Your task to perform on an android device: turn on improve location accuracy Image 0: 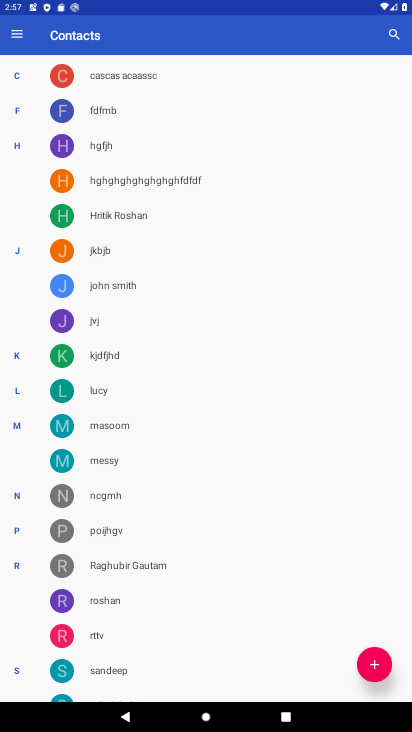
Step 0: press home button
Your task to perform on an android device: turn on improve location accuracy Image 1: 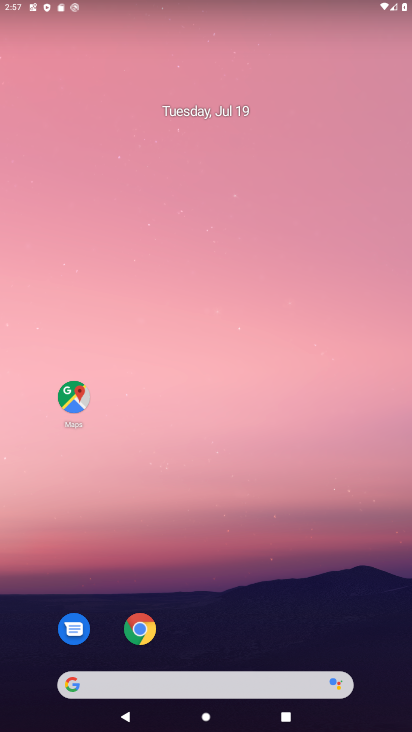
Step 1: drag from (193, 674) to (163, 60)
Your task to perform on an android device: turn on improve location accuracy Image 2: 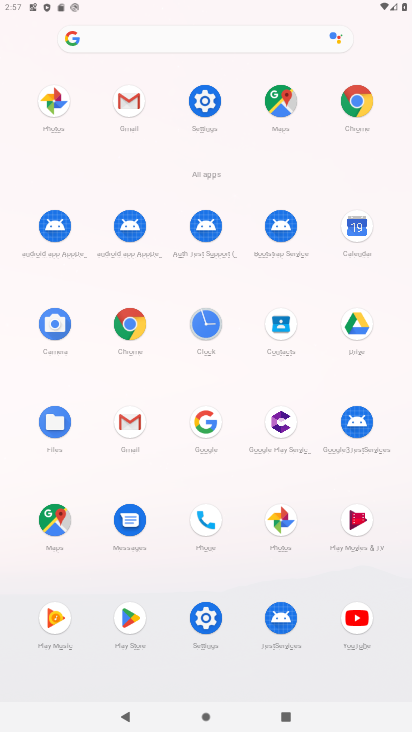
Step 2: click (198, 97)
Your task to perform on an android device: turn on improve location accuracy Image 3: 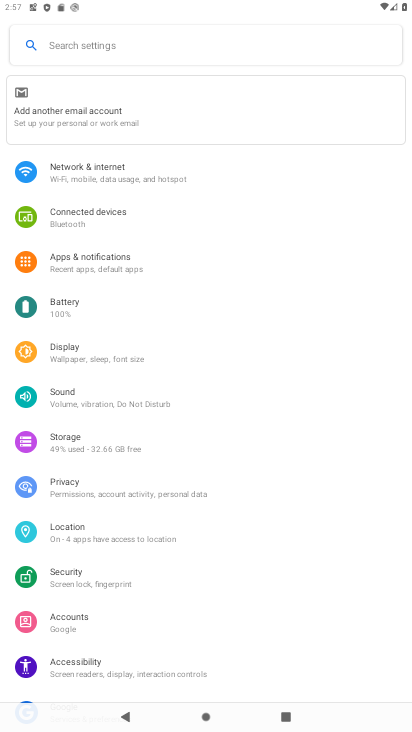
Step 3: click (81, 526)
Your task to perform on an android device: turn on improve location accuracy Image 4: 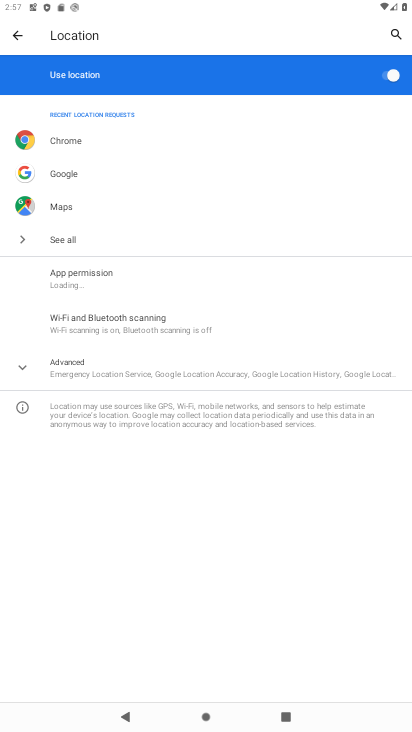
Step 4: click (124, 368)
Your task to perform on an android device: turn on improve location accuracy Image 5: 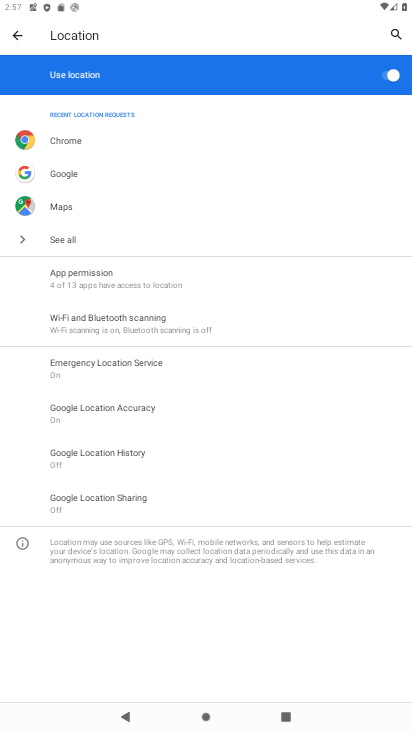
Step 5: click (156, 403)
Your task to perform on an android device: turn on improve location accuracy Image 6: 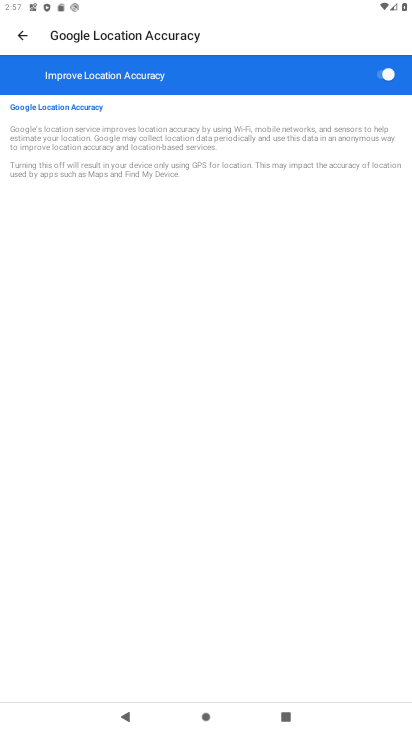
Step 6: task complete